Your task to perform on an android device: set default search engine in the chrome app Image 0: 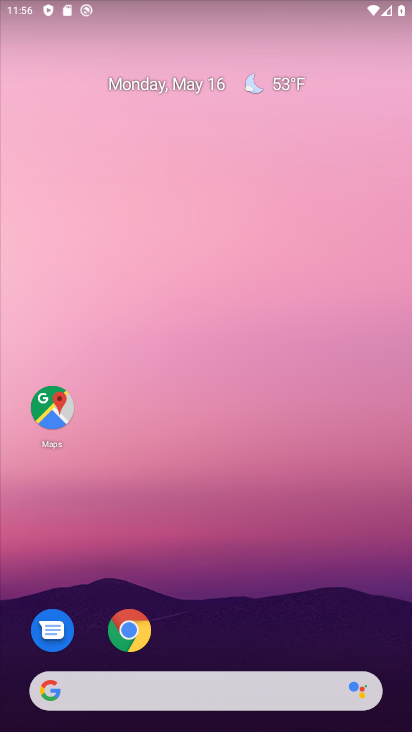
Step 0: drag from (227, 641) to (229, 143)
Your task to perform on an android device: set default search engine in the chrome app Image 1: 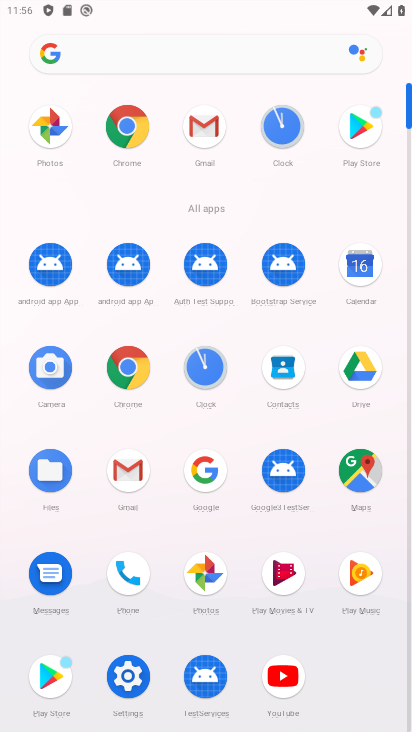
Step 1: click (135, 391)
Your task to perform on an android device: set default search engine in the chrome app Image 2: 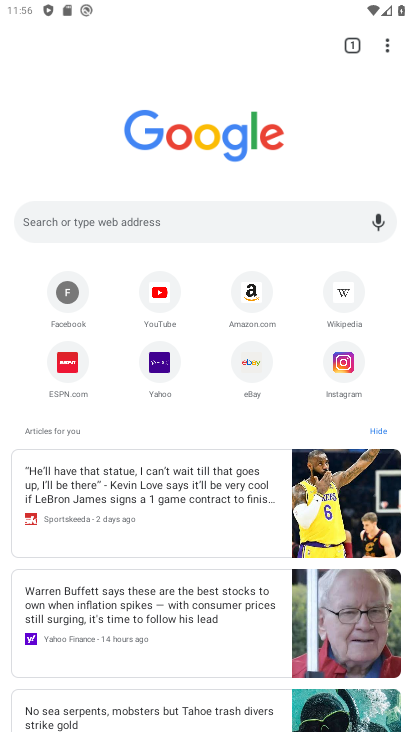
Step 2: click (392, 47)
Your task to perform on an android device: set default search engine in the chrome app Image 3: 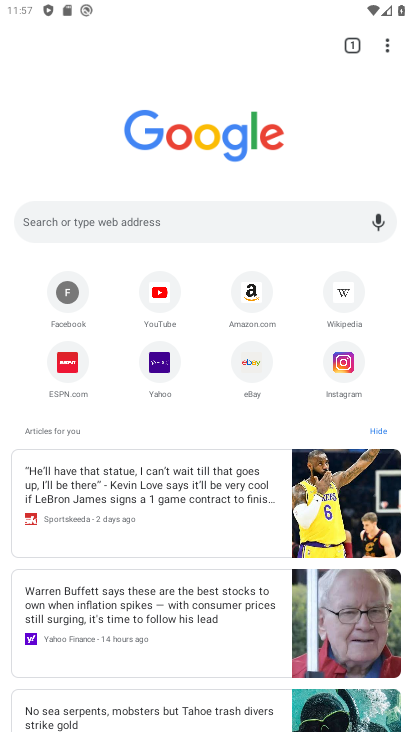
Step 3: click (382, 39)
Your task to perform on an android device: set default search engine in the chrome app Image 4: 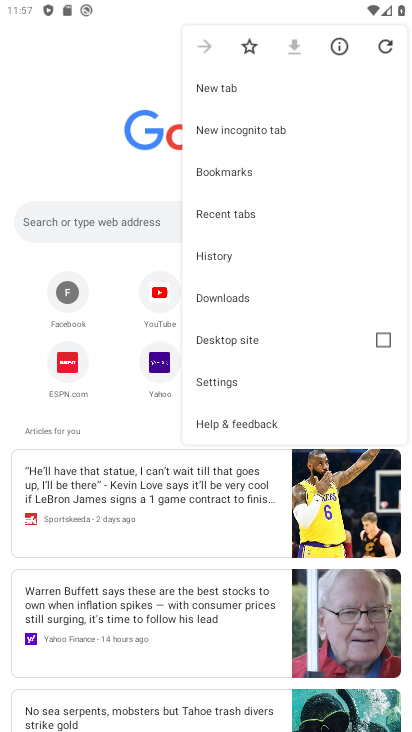
Step 4: click (231, 386)
Your task to perform on an android device: set default search engine in the chrome app Image 5: 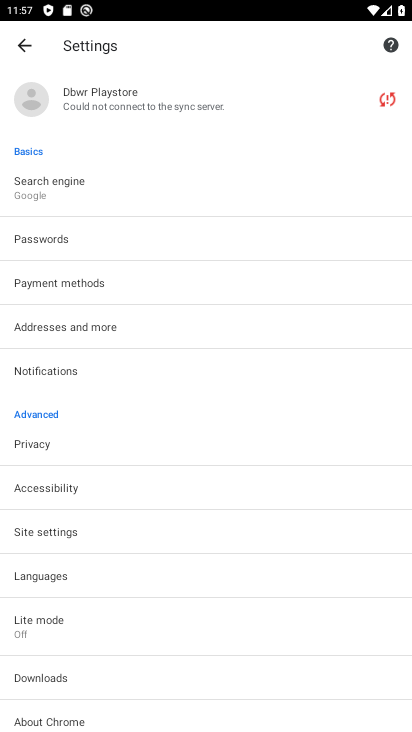
Step 5: drag from (127, 618) to (125, 470)
Your task to perform on an android device: set default search engine in the chrome app Image 6: 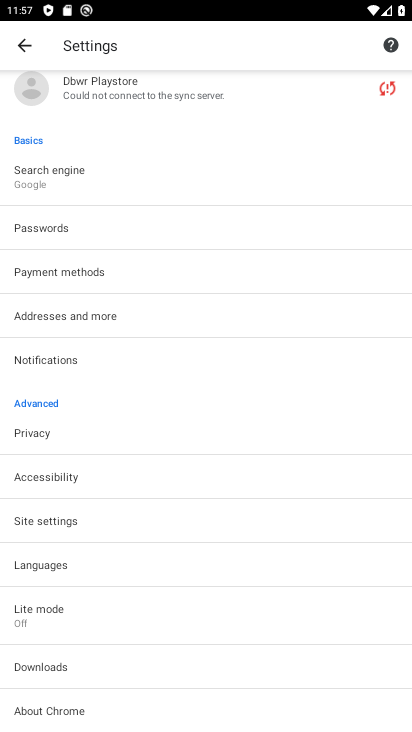
Step 6: click (74, 187)
Your task to perform on an android device: set default search engine in the chrome app Image 7: 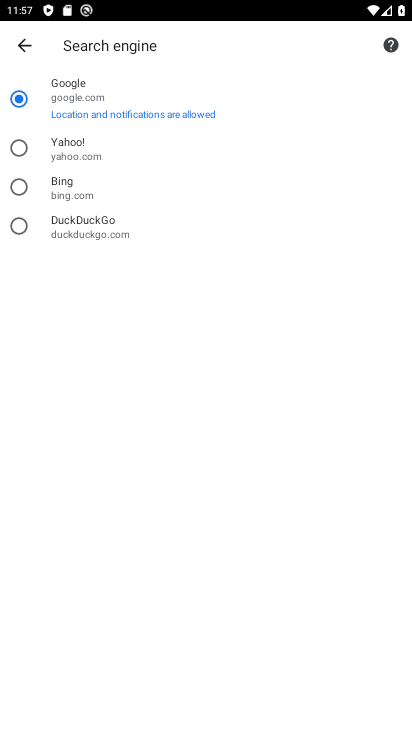
Step 7: task complete